Your task to perform on an android device: allow cookies in the chrome app Image 0: 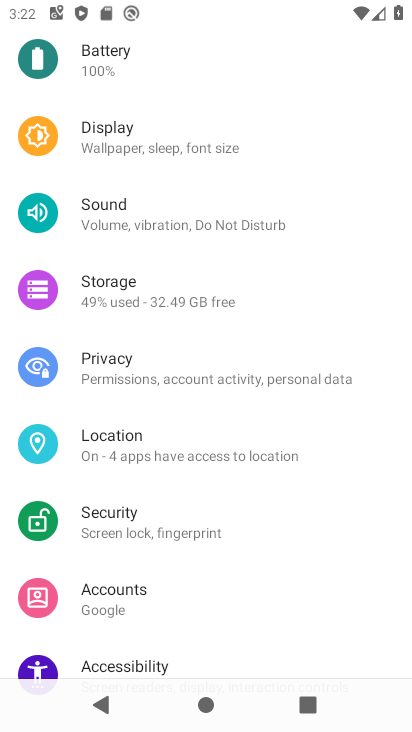
Step 0: press home button
Your task to perform on an android device: allow cookies in the chrome app Image 1: 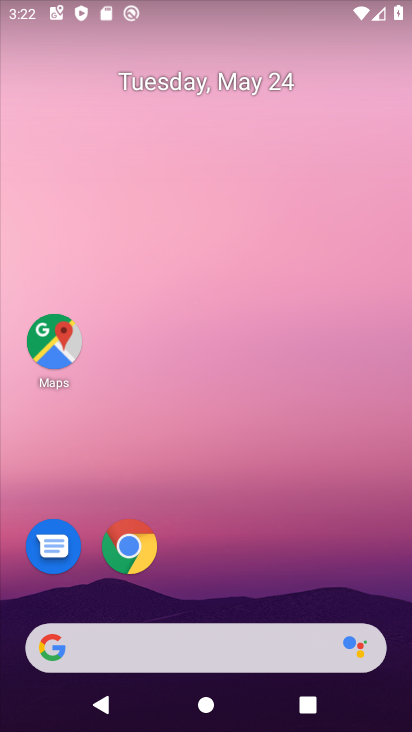
Step 1: click (134, 550)
Your task to perform on an android device: allow cookies in the chrome app Image 2: 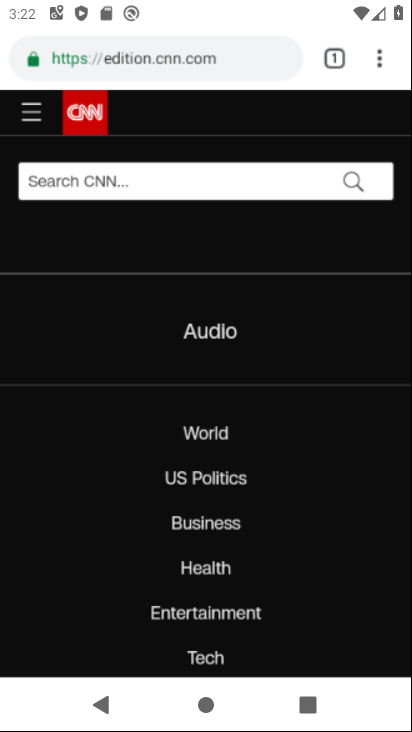
Step 2: click (387, 58)
Your task to perform on an android device: allow cookies in the chrome app Image 3: 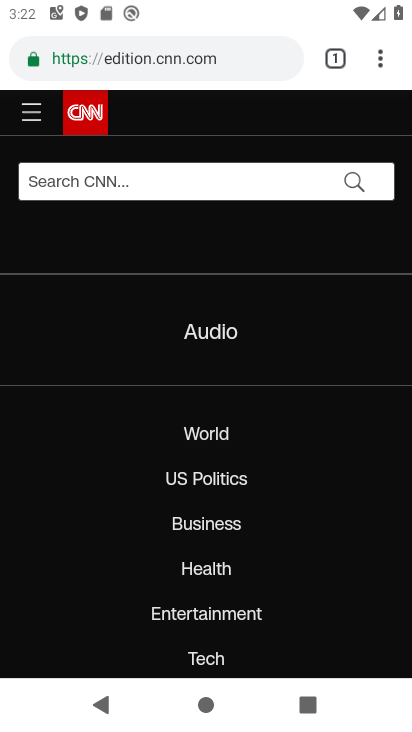
Step 3: click (377, 66)
Your task to perform on an android device: allow cookies in the chrome app Image 4: 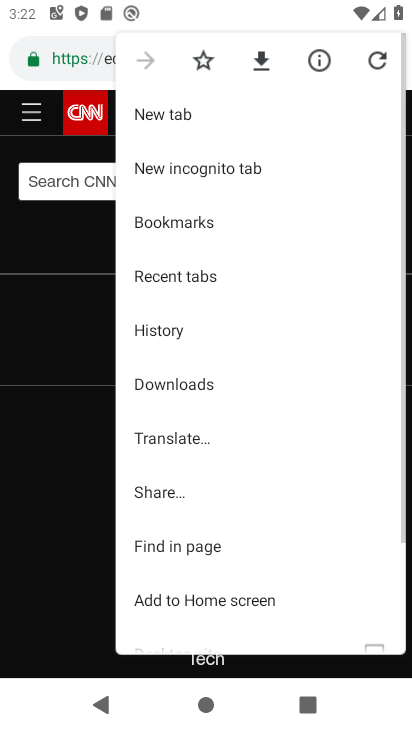
Step 4: drag from (225, 578) to (237, 118)
Your task to perform on an android device: allow cookies in the chrome app Image 5: 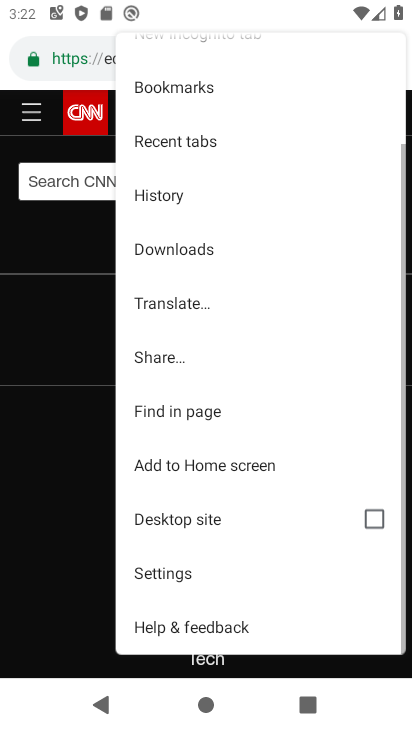
Step 5: click (229, 578)
Your task to perform on an android device: allow cookies in the chrome app Image 6: 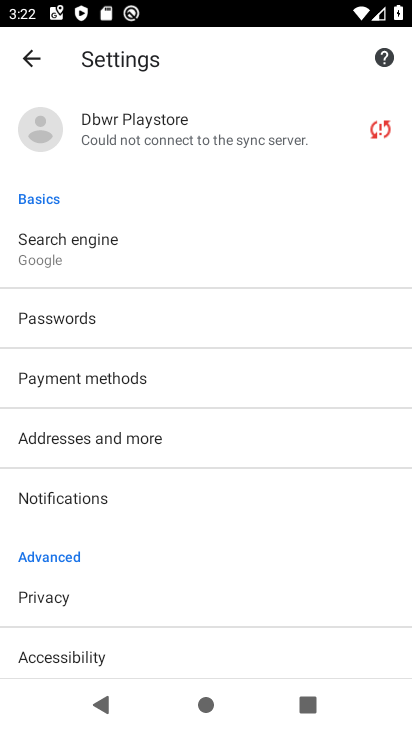
Step 6: drag from (216, 609) to (218, 197)
Your task to perform on an android device: allow cookies in the chrome app Image 7: 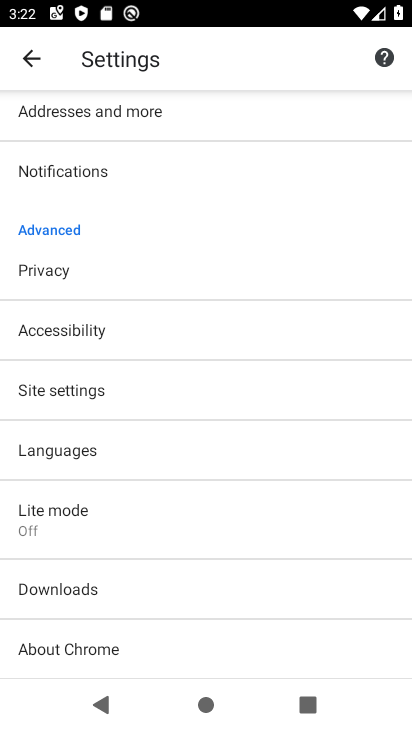
Step 7: click (147, 380)
Your task to perform on an android device: allow cookies in the chrome app Image 8: 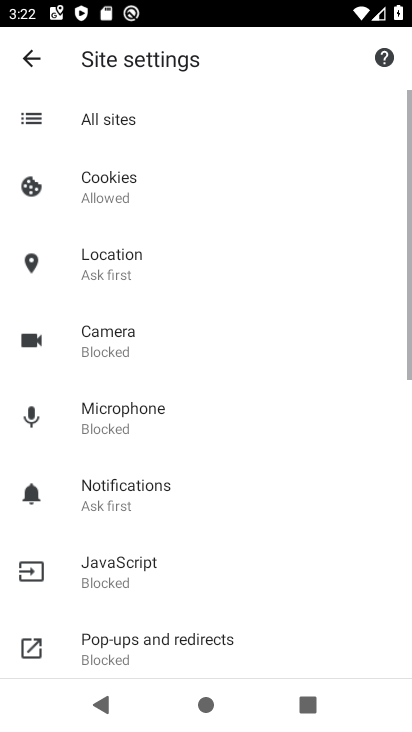
Step 8: click (197, 174)
Your task to perform on an android device: allow cookies in the chrome app Image 9: 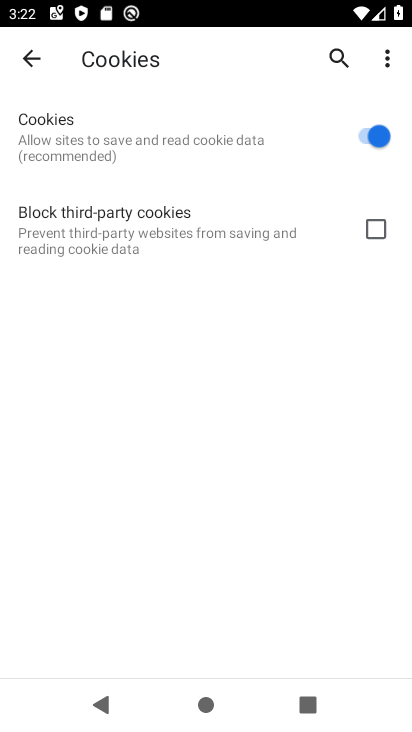
Step 9: task complete